Your task to perform on an android device: turn on the 12-hour format for clock Image 0: 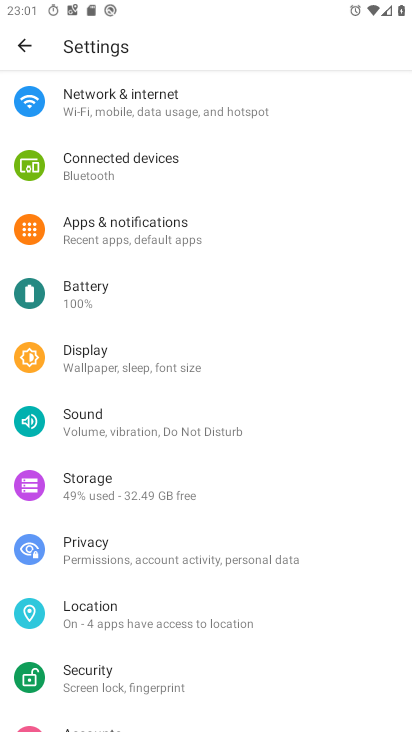
Step 0: press home button
Your task to perform on an android device: turn on the 12-hour format for clock Image 1: 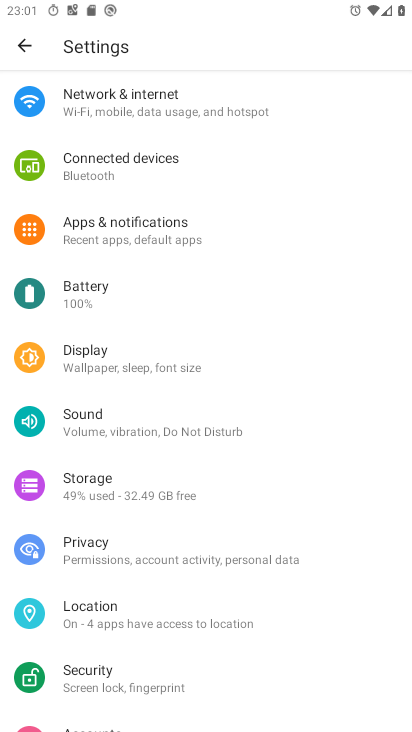
Step 1: press home button
Your task to perform on an android device: turn on the 12-hour format for clock Image 2: 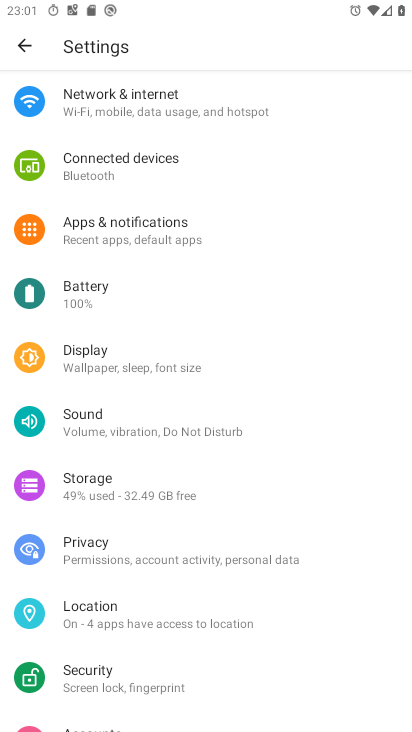
Step 2: drag from (212, 606) to (324, 15)
Your task to perform on an android device: turn on the 12-hour format for clock Image 3: 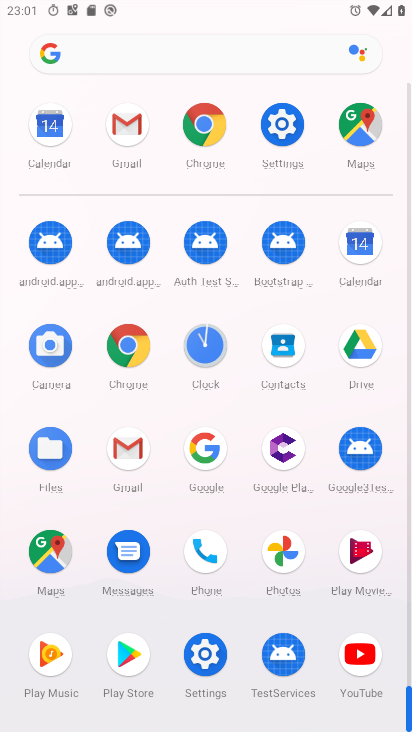
Step 3: click (210, 336)
Your task to perform on an android device: turn on the 12-hour format for clock Image 4: 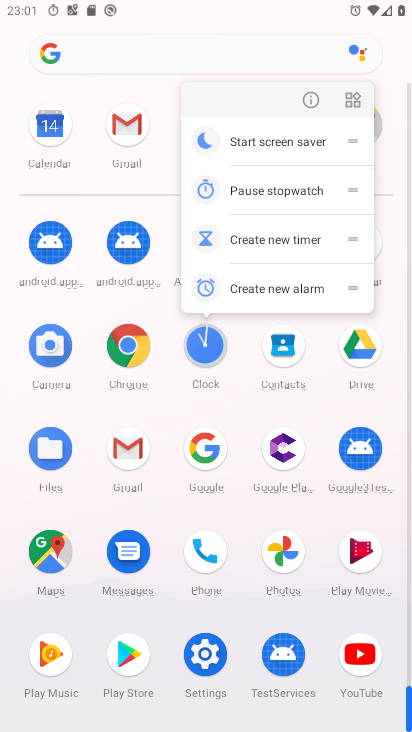
Step 4: click (312, 103)
Your task to perform on an android device: turn on the 12-hour format for clock Image 5: 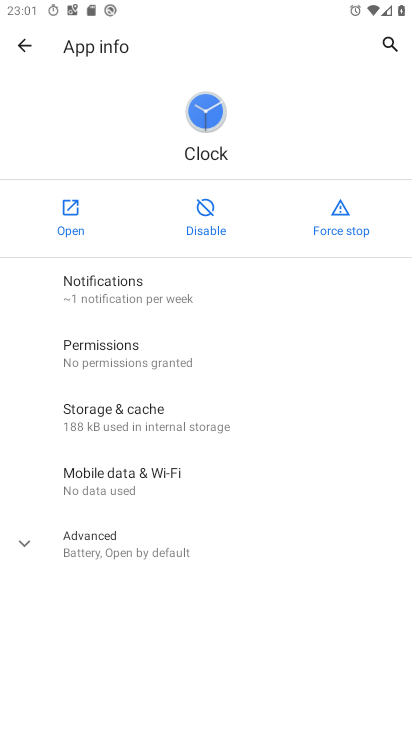
Step 5: click (73, 216)
Your task to perform on an android device: turn on the 12-hour format for clock Image 6: 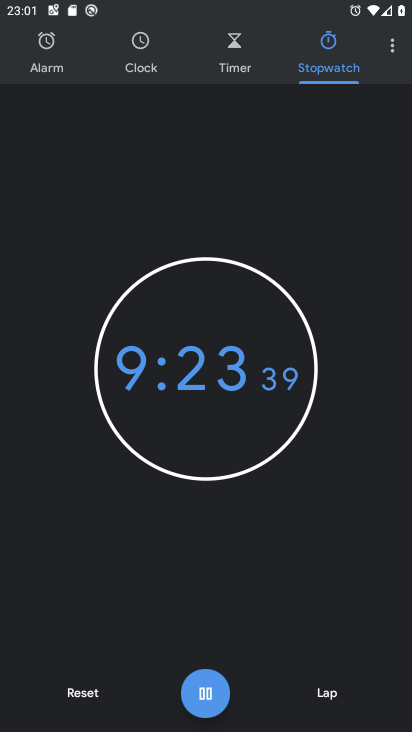
Step 6: click (82, 684)
Your task to perform on an android device: turn on the 12-hour format for clock Image 7: 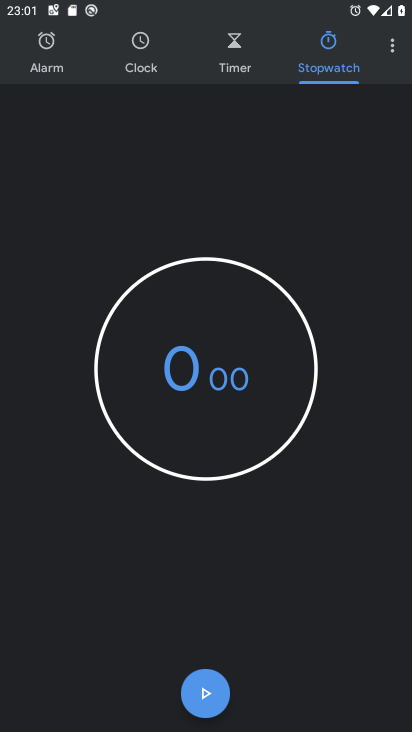
Step 7: click (395, 45)
Your task to perform on an android device: turn on the 12-hour format for clock Image 8: 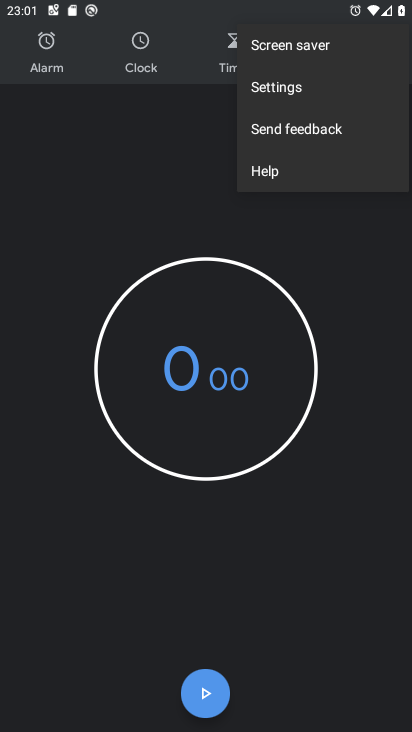
Step 8: click (301, 85)
Your task to perform on an android device: turn on the 12-hour format for clock Image 9: 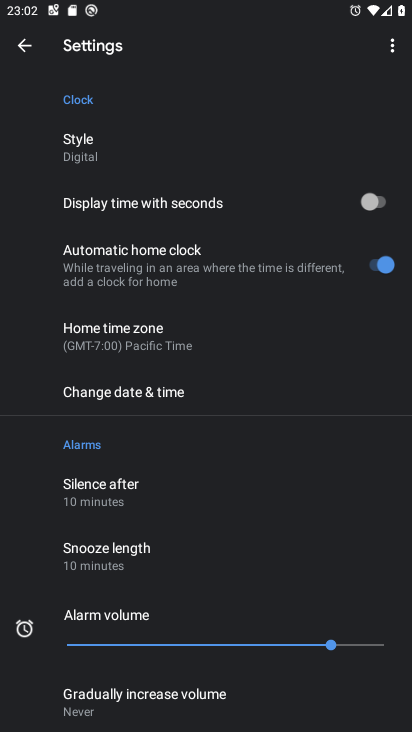
Step 9: drag from (160, 571) to (213, 220)
Your task to perform on an android device: turn on the 12-hour format for clock Image 10: 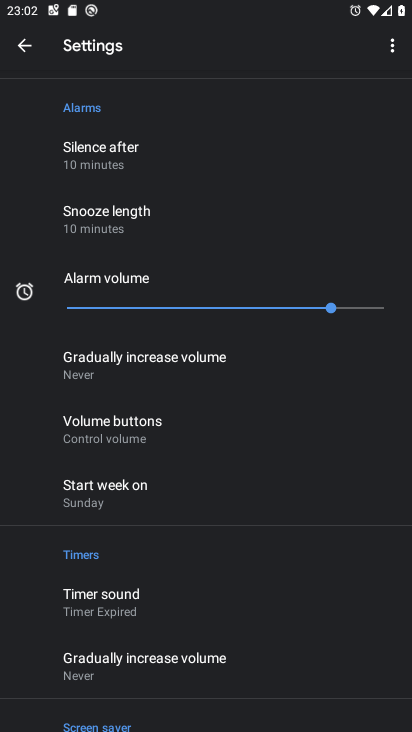
Step 10: drag from (214, 265) to (251, 642)
Your task to perform on an android device: turn on the 12-hour format for clock Image 11: 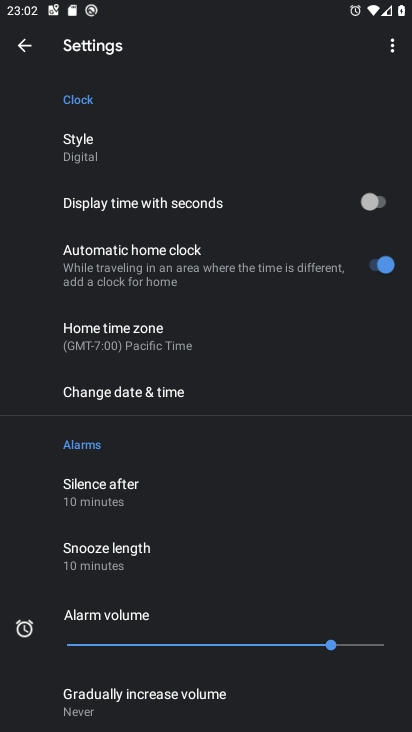
Step 11: click (150, 383)
Your task to perform on an android device: turn on the 12-hour format for clock Image 12: 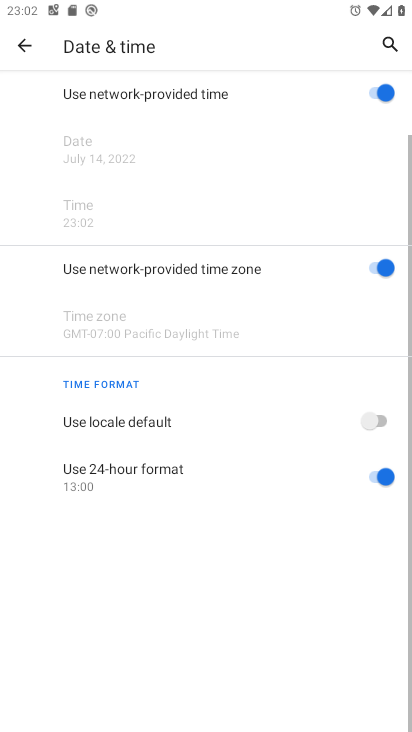
Step 12: drag from (208, 626) to (259, 271)
Your task to perform on an android device: turn on the 12-hour format for clock Image 13: 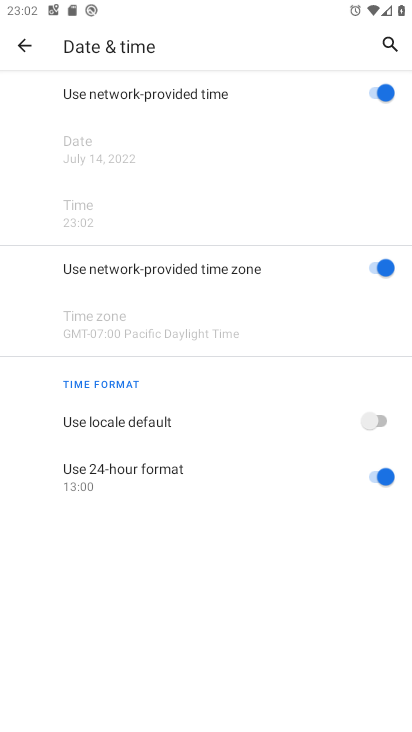
Step 13: click (374, 480)
Your task to perform on an android device: turn on the 12-hour format for clock Image 14: 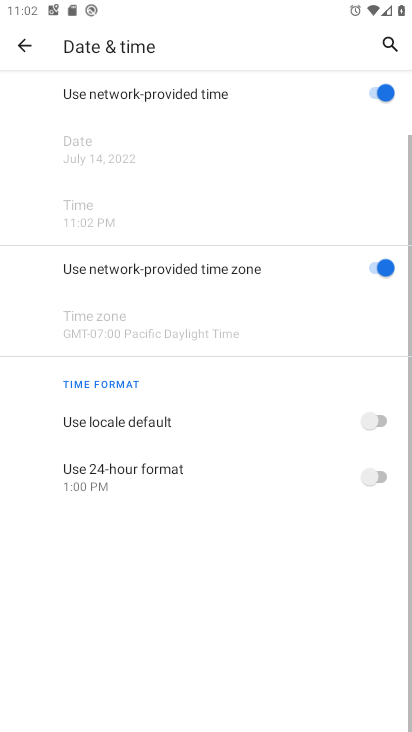
Step 14: task complete